Your task to perform on an android device: turn off improve location accuracy Image 0: 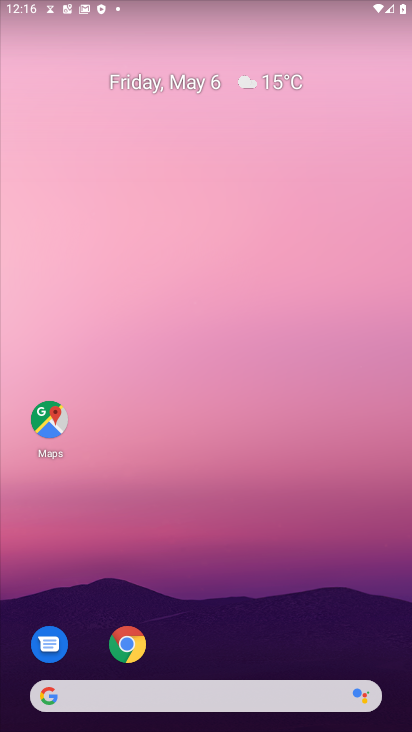
Step 0: drag from (261, 607) to (253, 20)
Your task to perform on an android device: turn off improve location accuracy Image 1: 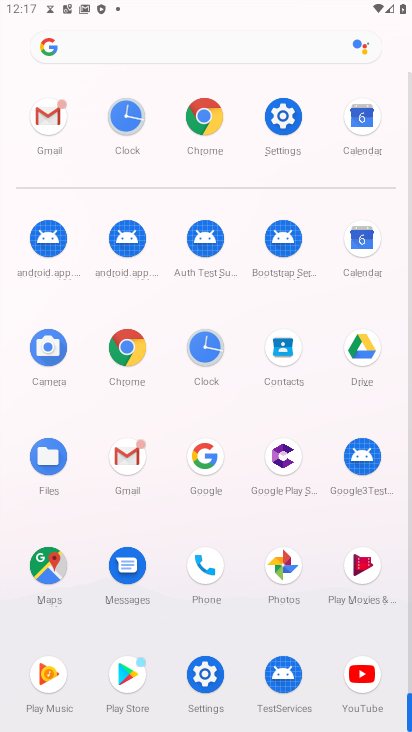
Step 1: drag from (11, 548) to (8, 234)
Your task to perform on an android device: turn off improve location accuracy Image 2: 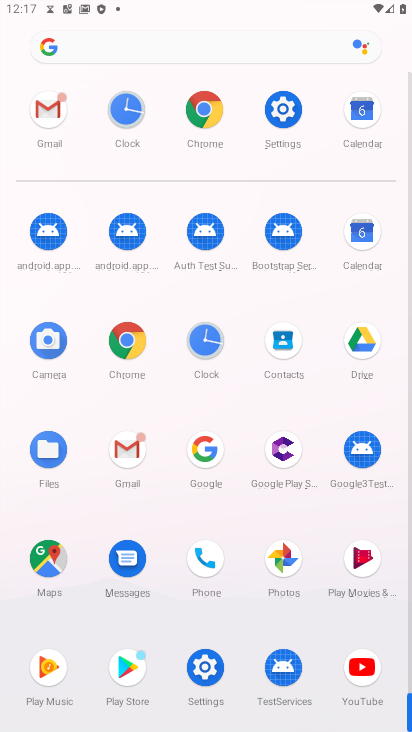
Step 2: drag from (12, 582) to (25, 256)
Your task to perform on an android device: turn off improve location accuracy Image 3: 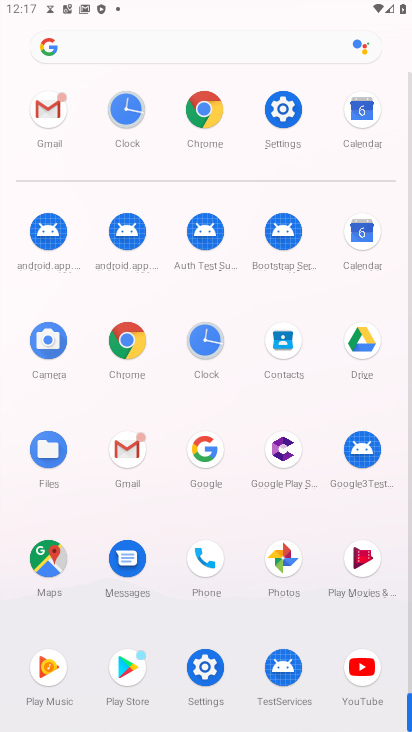
Step 3: drag from (14, 615) to (6, 353)
Your task to perform on an android device: turn off improve location accuracy Image 4: 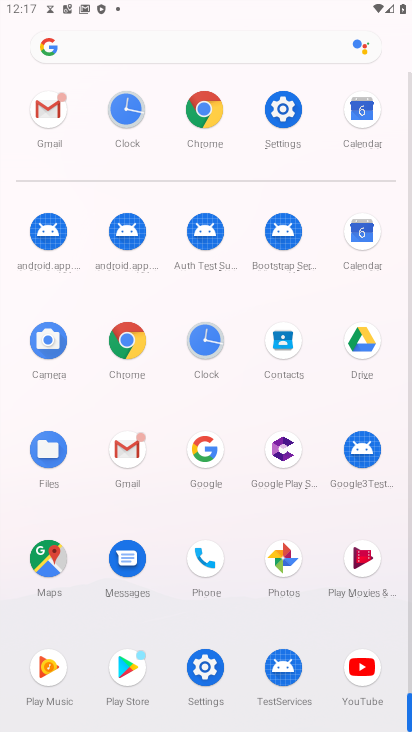
Step 4: click (208, 660)
Your task to perform on an android device: turn off improve location accuracy Image 5: 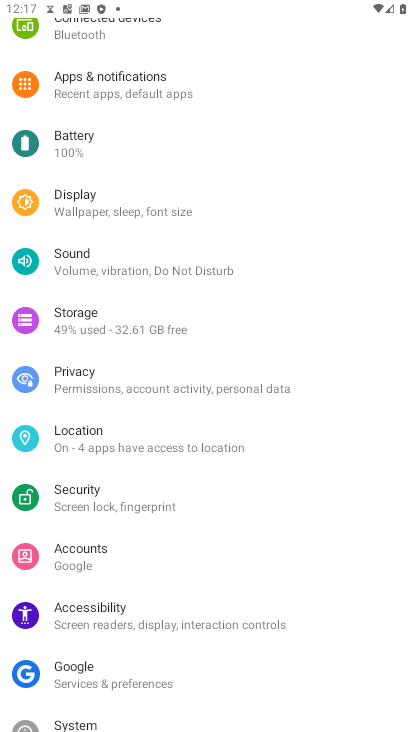
Step 5: drag from (212, 448) to (234, 77)
Your task to perform on an android device: turn off improve location accuracy Image 6: 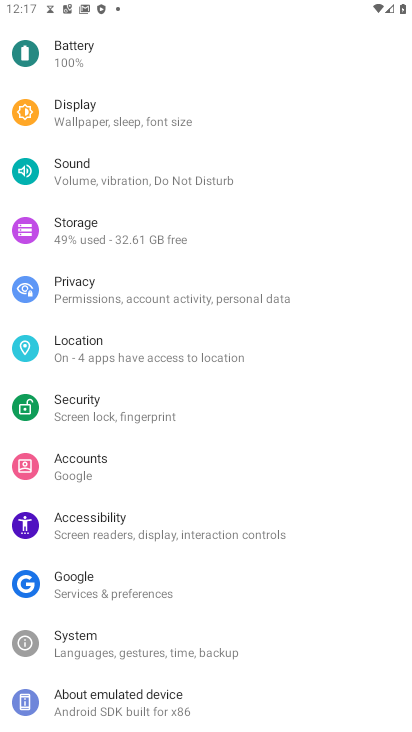
Step 6: drag from (210, 112) to (237, 488)
Your task to perform on an android device: turn off improve location accuracy Image 7: 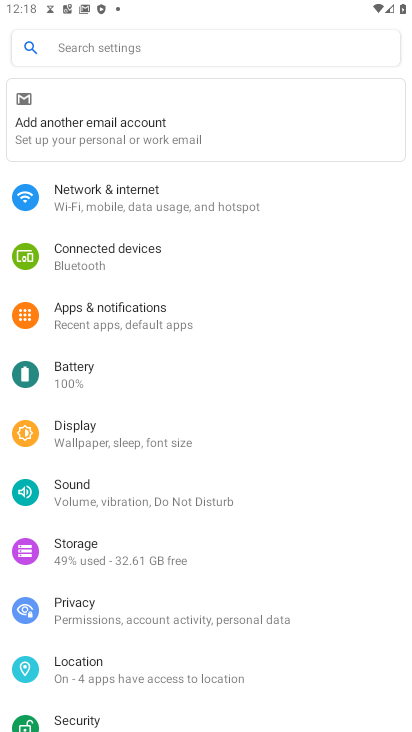
Step 7: drag from (182, 580) to (241, 159)
Your task to perform on an android device: turn off improve location accuracy Image 8: 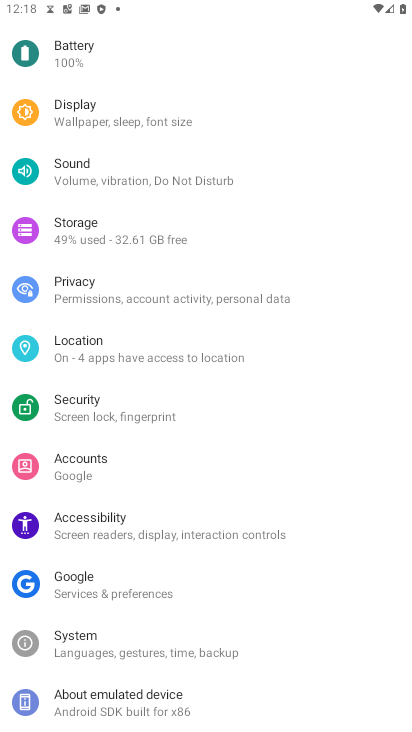
Step 8: click (136, 339)
Your task to perform on an android device: turn off improve location accuracy Image 9: 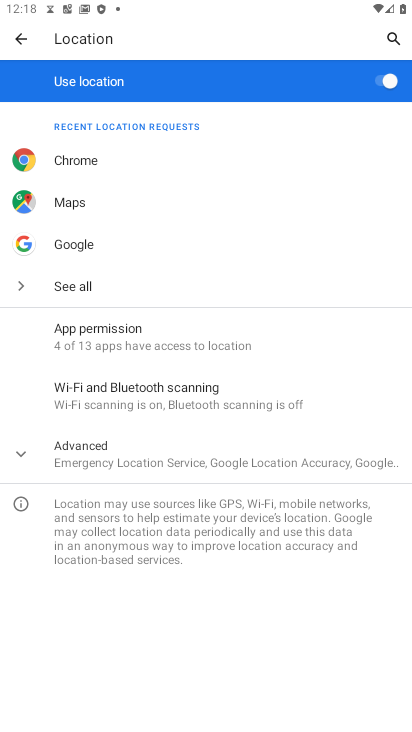
Step 9: click (79, 463)
Your task to perform on an android device: turn off improve location accuracy Image 10: 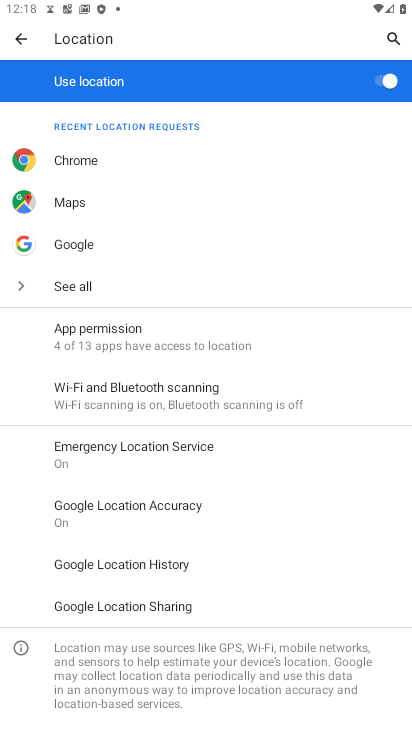
Step 10: click (168, 506)
Your task to perform on an android device: turn off improve location accuracy Image 11: 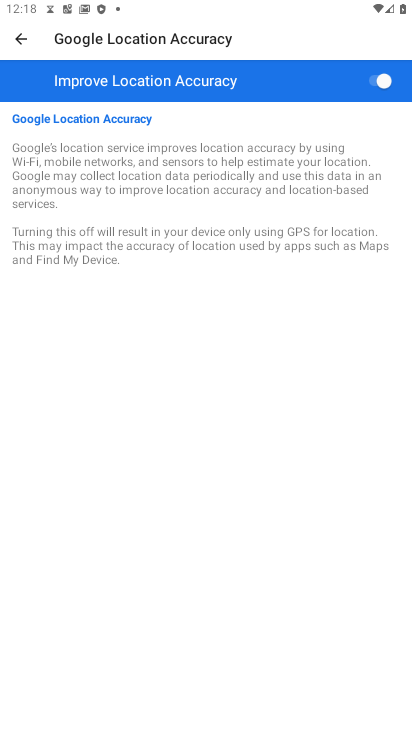
Step 11: click (376, 79)
Your task to perform on an android device: turn off improve location accuracy Image 12: 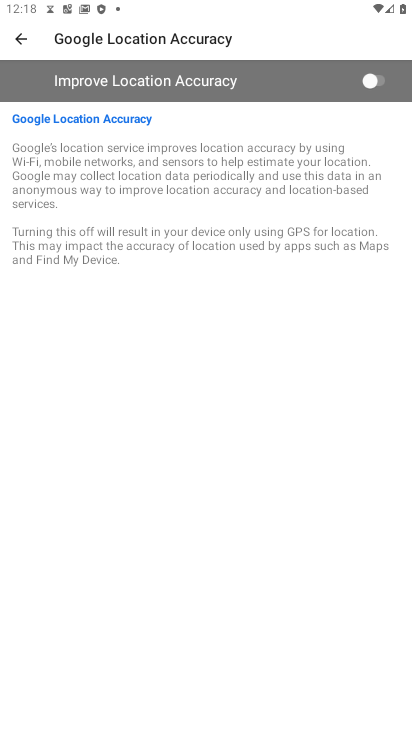
Step 12: task complete